Your task to perform on an android device: Go to accessibility settings Image 0: 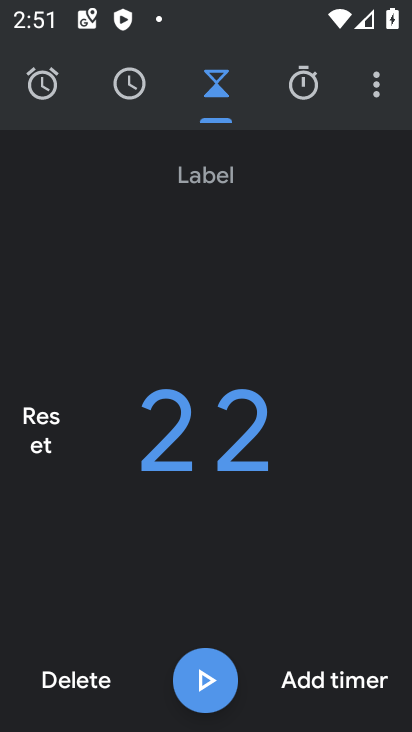
Step 0: press home button
Your task to perform on an android device: Go to accessibility settings Image 1: 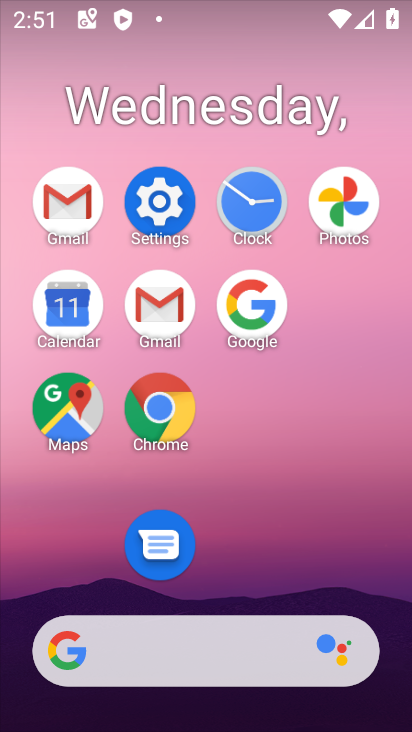
Step 1: click (151, 201)
Your task to perform on an android device: Go to accessibility settings Image 2: 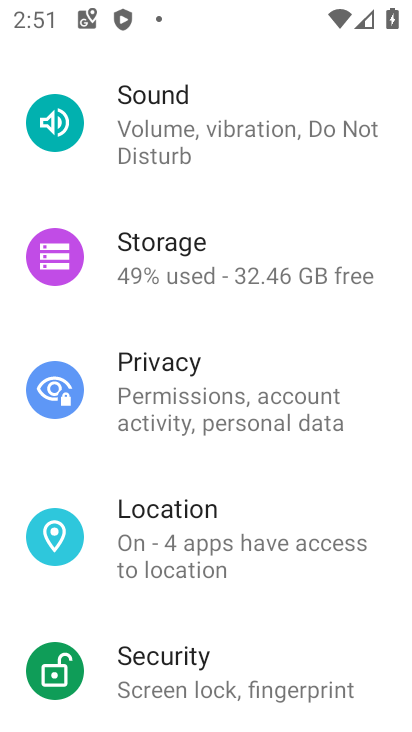
Step 2: drag from (278, 624) to (266, 152)
Your task to perform on an android device: Go to accessibility settings Image 3: 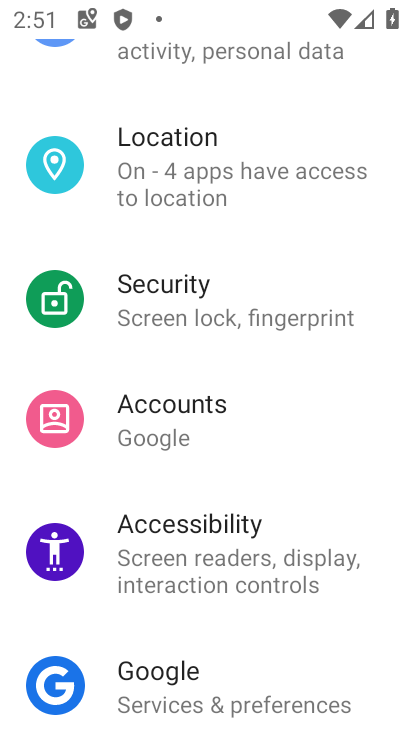
Step 3: click (260, 555)
Your task to perform on an android device: Go to accessibility settings Image 4: 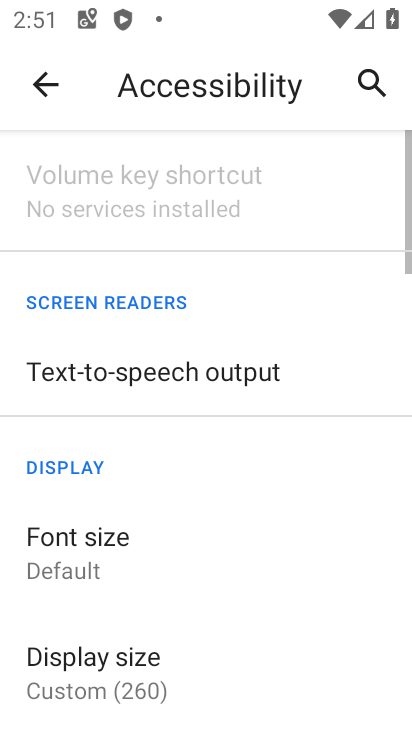
Step 4: task complete